Your task to perform on an android device: Go to Reddit.com Image 0: 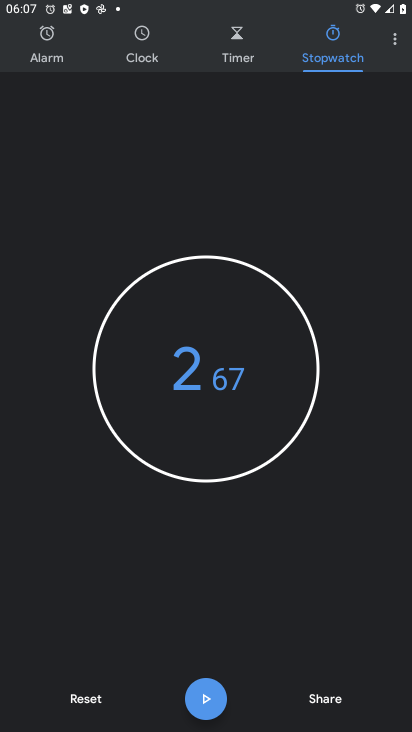
Step 0: press home button
Your task to perform on an android device: Go to Reddit.com Image 1: 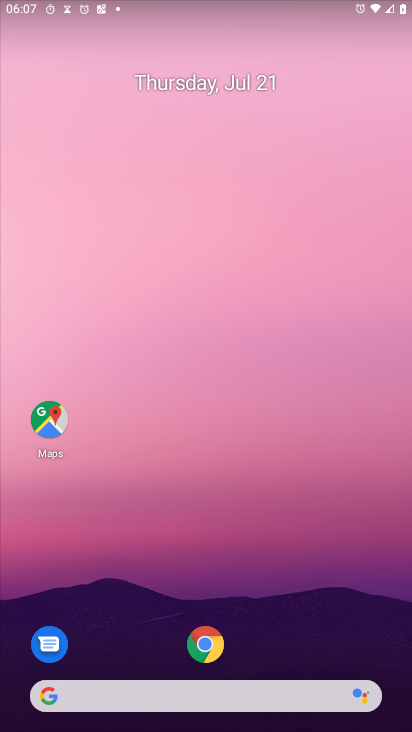
Step 1: click (39, 695)
Your task to perform on an android device: Go to Reddit.com Image 2: 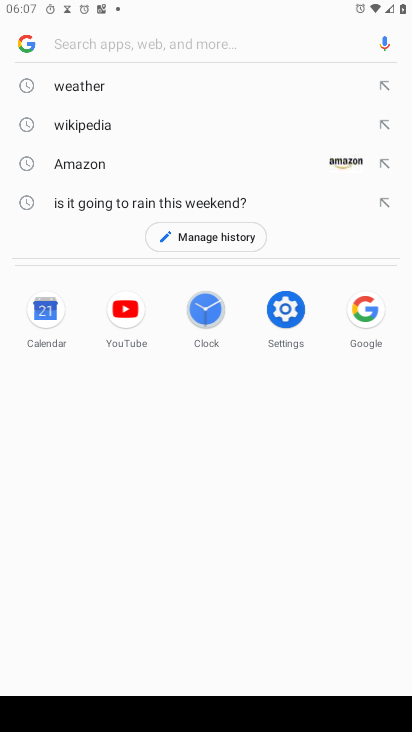
Step 2: type "Reddit.com"
Your task to perform on an android device: Go to Reddit.com Image 3: 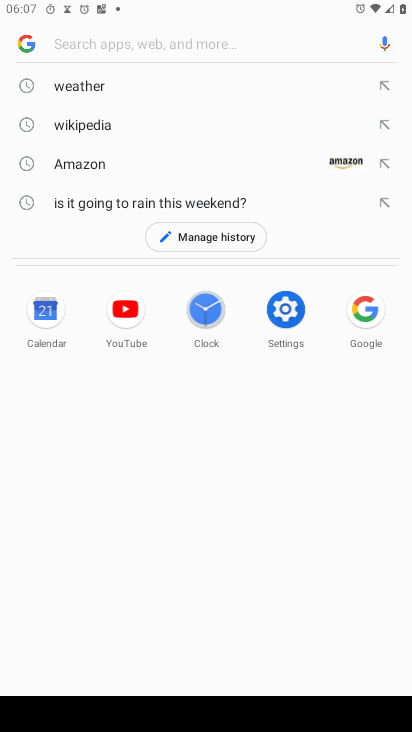
Step 3: click (74, 34)
Your task to perform on an android device: Go to Reddit.com Image 4: 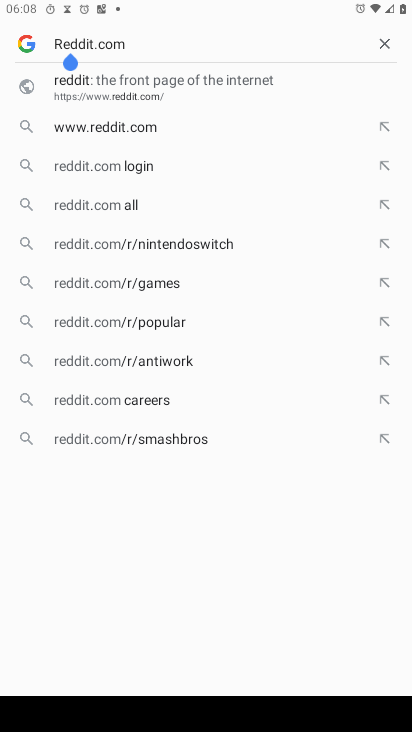
Step 4: press enter
Your task to perform on an android device: Go to Reddit.com Image 5: 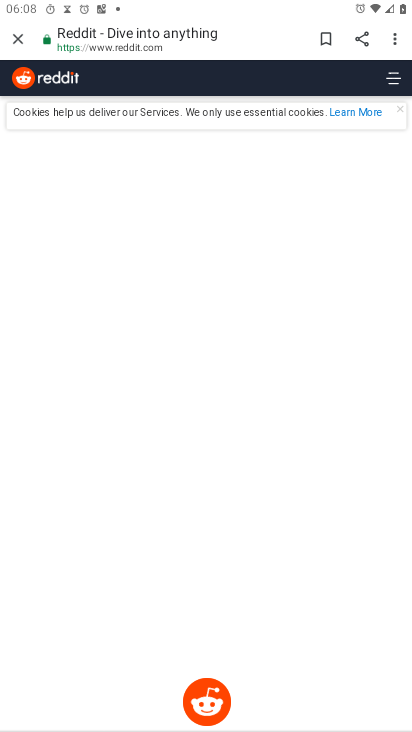
Step 5: task complete